Your task to perform on an android device: move an email to a new category in the gmail app Image 0: 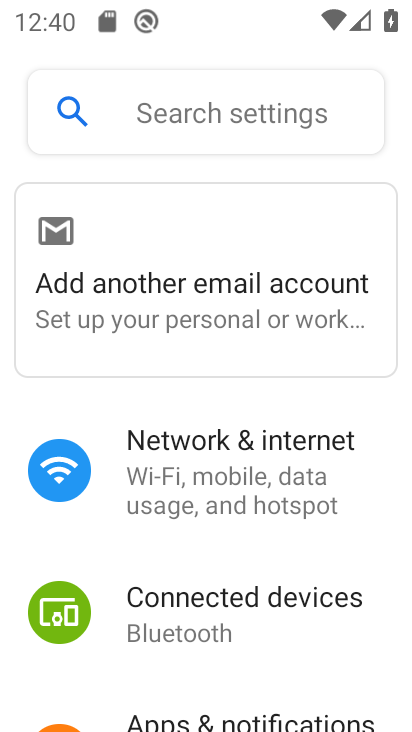
Step 0: press home button
Your task to perform on an android device: move an email to a new category in the gmail app Image 1: 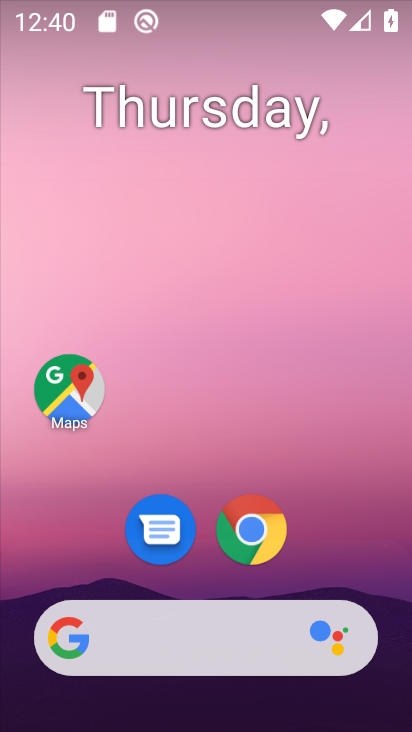
Step 1: drag from (373, 560) to (335, 178)
Your task to perform on an android device: move an email to a new category in the gmail app Image 2: 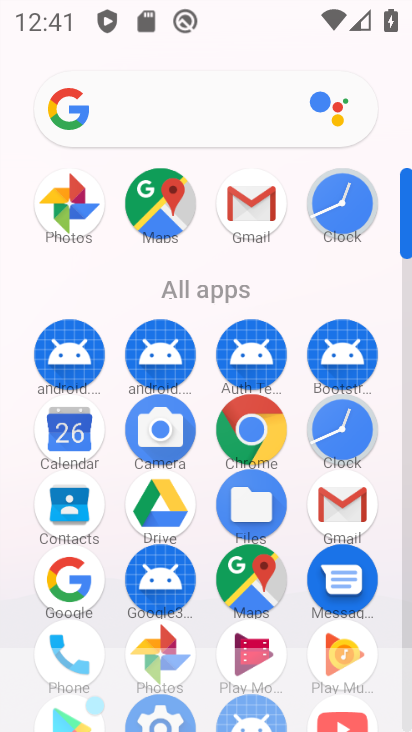
Step 2: drag from (373, 597) to (393, 249)
Your task to perform on an android device: move an email to a new category in the gmail app Image 3: 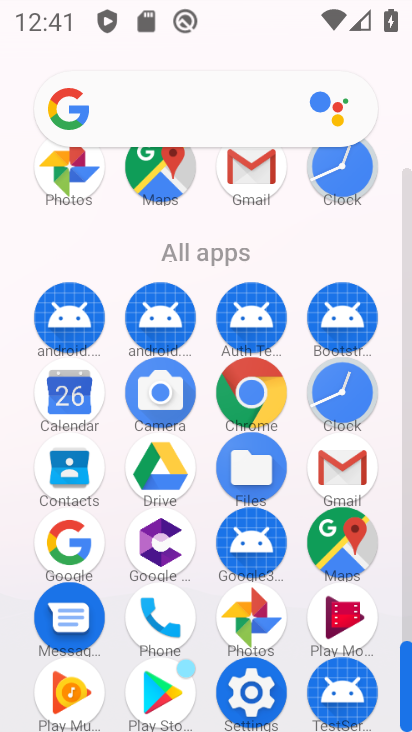
Step 3: drag from (393, 511) to (400, 185)
Your task to perform on an android device: move an email to a new category in the gmail app Image 4: 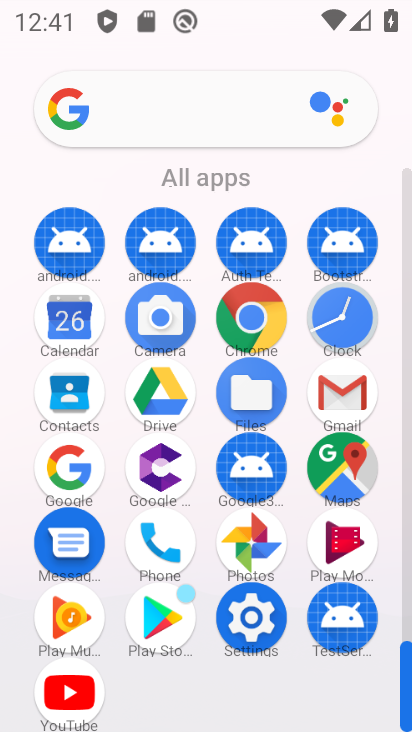
Step 4: click (342, 394)
Your task to perform on an android device: move an email to a new category in the gmail app Image 5: 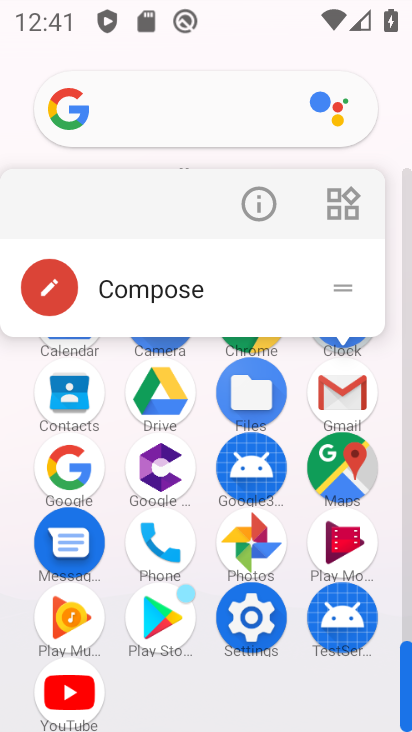
Step 5: click (335, 402)
Your task to perform on an android device: move an email to a new category in the gmail app Image 6: 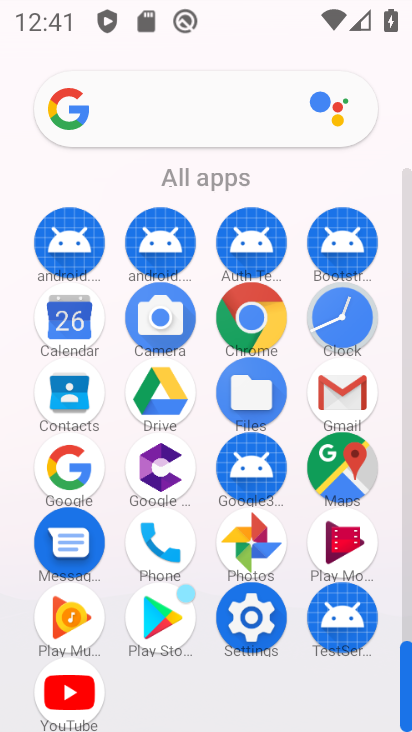
Step 6: click (334, 403)
Your task to perform on an android device: move an email to a new category in the gmail app Image 7: 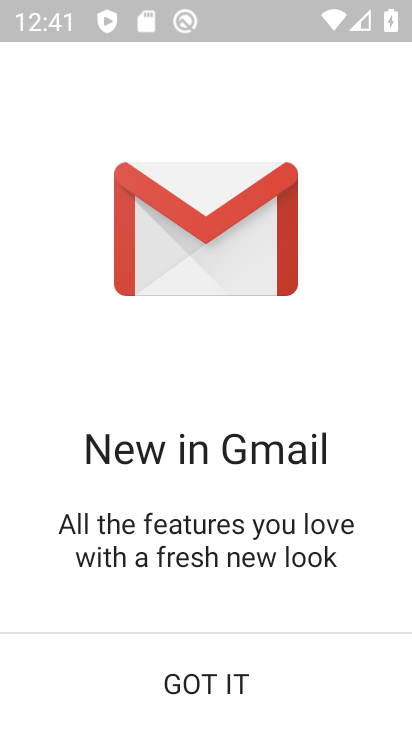
Step 7: click (260, 672)
Your task to perform on an android device: move an email to a new category in the gmail app Image 8: 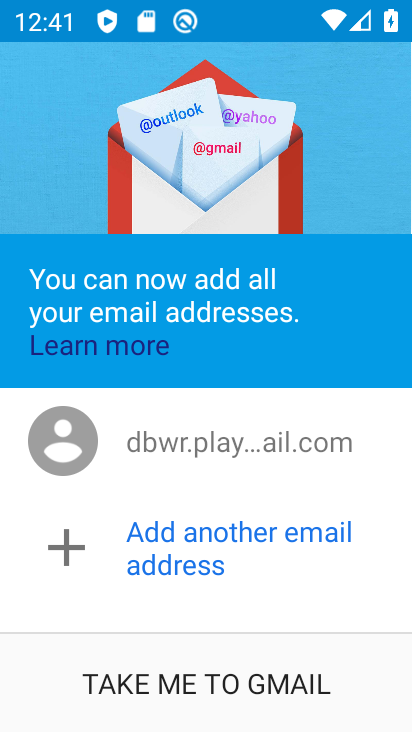
Step 8: click (275, 679)
Your task to perform on an android device: move an email to a new category in the gmail app Image 9: 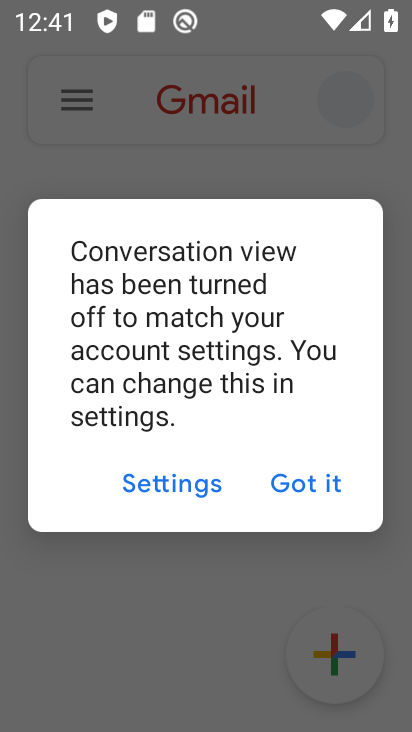
Step 9: click (309, 505)
Your task to perform on an android device: move an email to a new category in the gmail app Image 10: 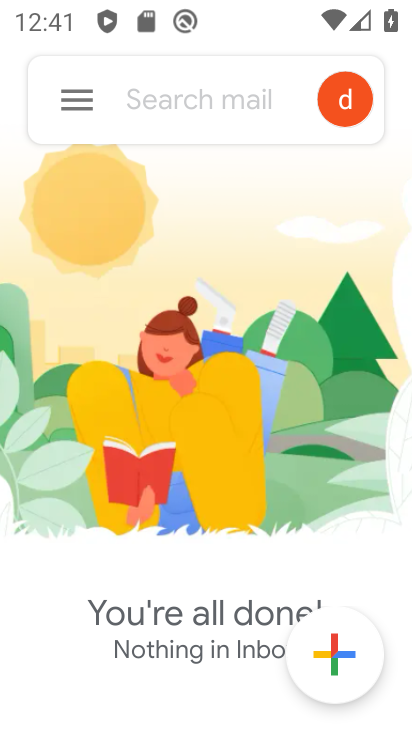
Step 10: click (93, 100)
Your task to perform on an android device: move an email to a new category in the gmail app Image 11: 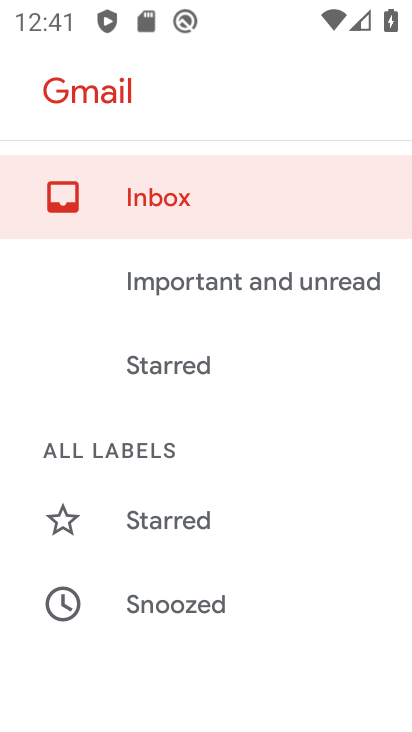
Step 11: drag from (241, 611) to (227, 231)
Your task to perform on an android device: move an email to a new category in the gmail app Image 12: 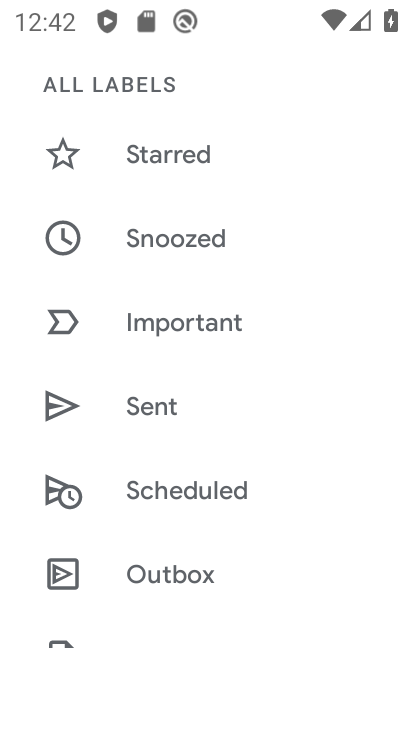
Step 12: drag from (244, 657) to (275, 321)
Your task to perform on an android device: move an email to a new category in the gmail app Image 13: 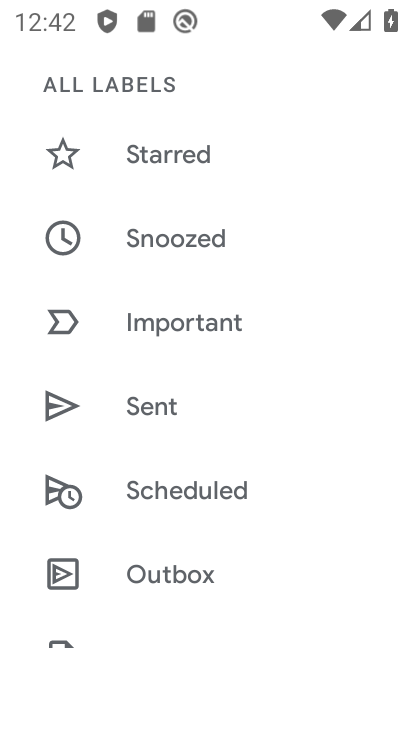
Step 13: drag from (237, 562) to (250, 268)
Your task to perform on an android device: move an email to a new category in the gmail app Image 14: 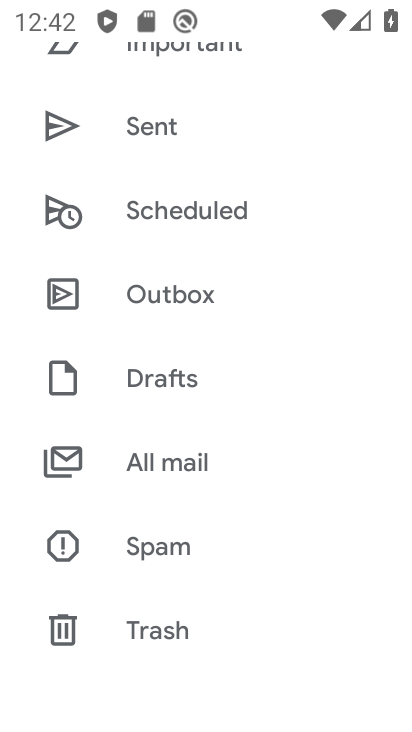
Step 14: click (207, 480)
Your task to perform on an android device: move an email to a new category in the gmail app Image 15: 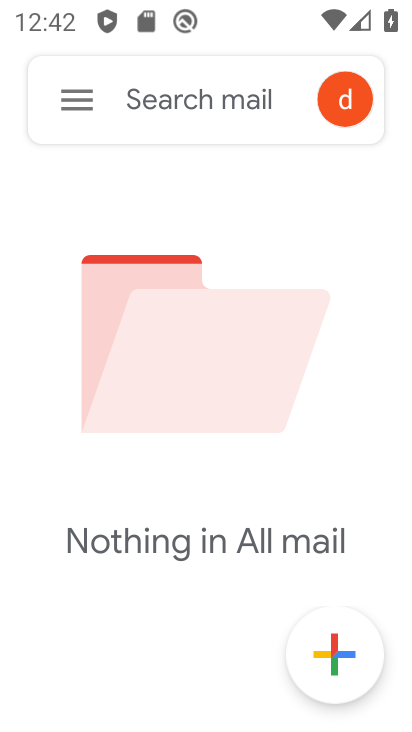
Step 15: task complete